Your task to perform on an android device: toggle notification dots Image 0: 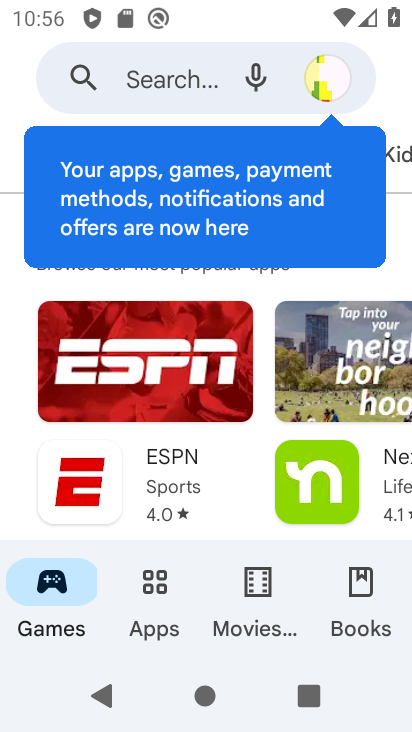
Step 0: press back button
Your task to perform on an android device: toggle notification dots Image 1: 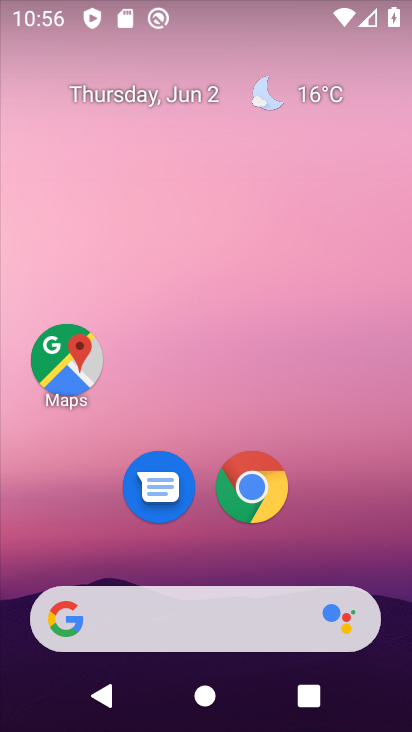
Step 1: drag from (358, 472) to (223, 38)
Your task to perform on an android device: toggle notification dots Image 2: 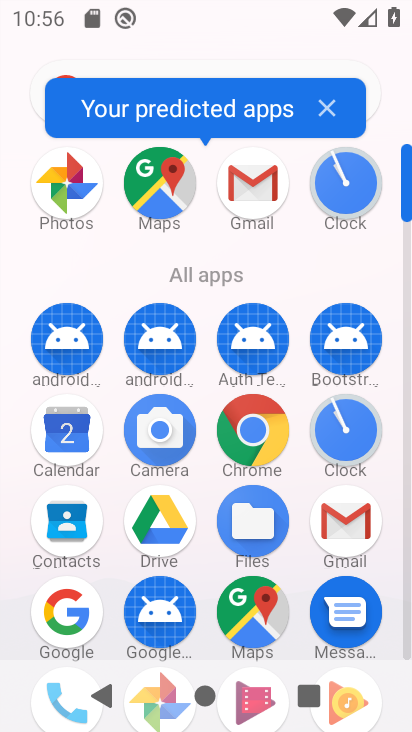
Step 2: drag from (350, 259) to (318, 20)
Your task to perform on an android device: toggle notification dots Image 3: 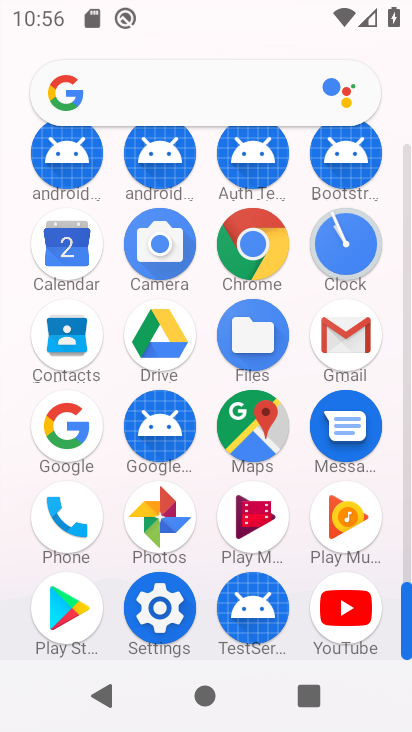
Step 3: click (160, 606)
Your task to perform on an android device: toggle notification dots Image 4: 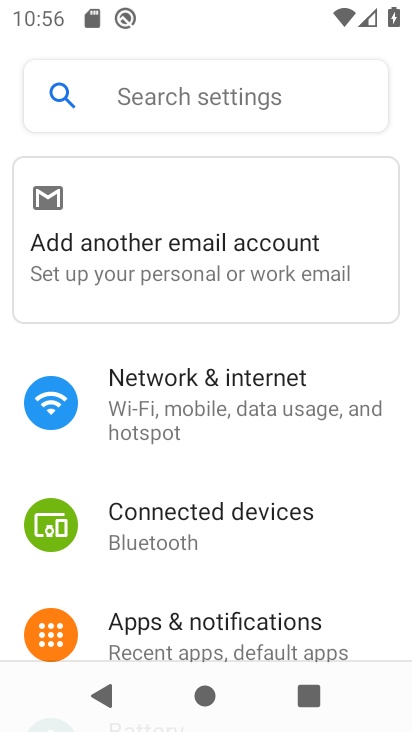
Step 4: drag from (165, 463) to (216, 346)
Your task to perform on an android device: toggle notification dots Image 5: 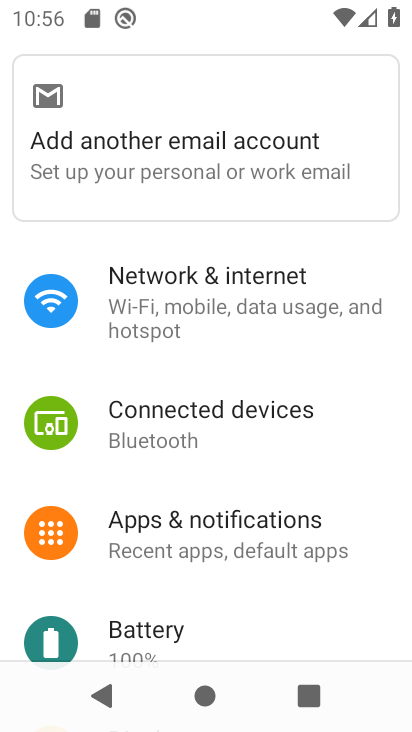
Step 5: click (226, 525)
Your task to perform on an android device: toggle notification dots Image 6: 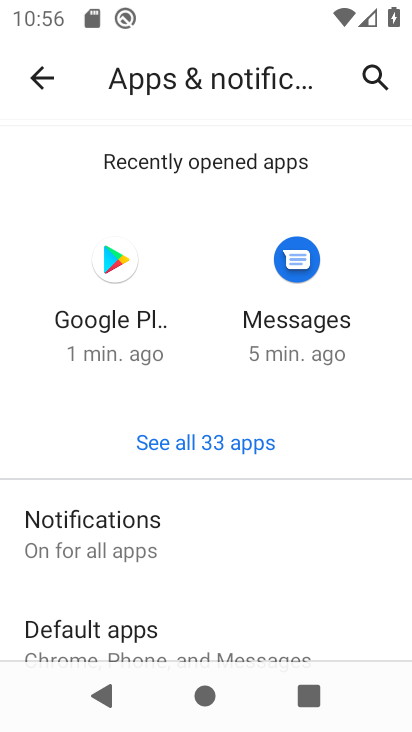
Step 6: click (107, 540)
Your task to perform on an android device: toggle notification dots Image 7: 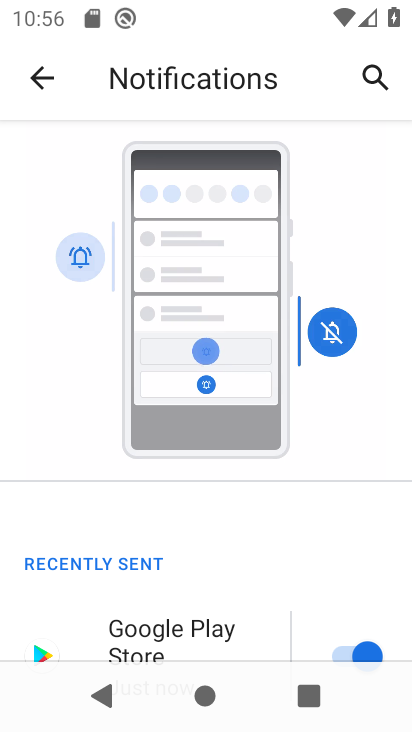
Step 7: drag from (188, 542) to (186, 286)
Your task to perform on an android device: toggle notification dots Image 8: 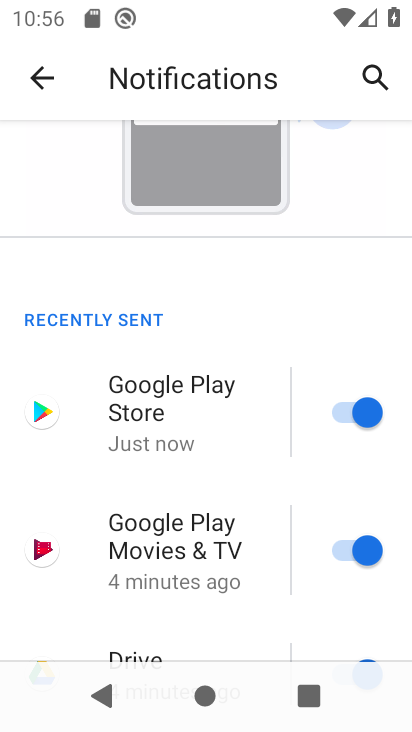
Step 8: drag from (167, 478) to (153, 292)
Your task to perform on an android device: toggle notification dots Image 9: 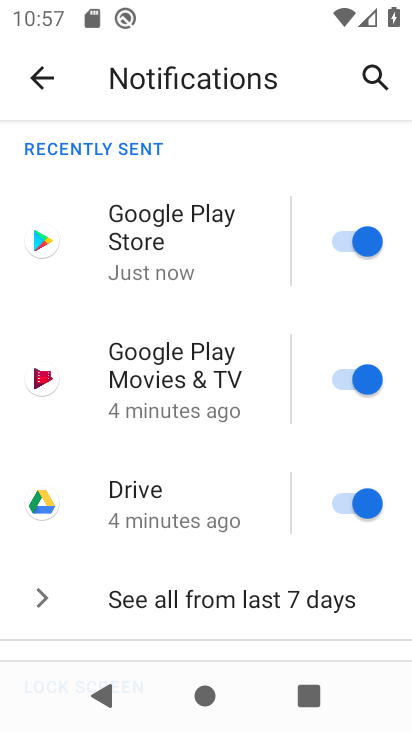
Step 9: drag from (151, 453) to (160, 286)
Your task to perform on an android device: toggle notification dots Image 10: 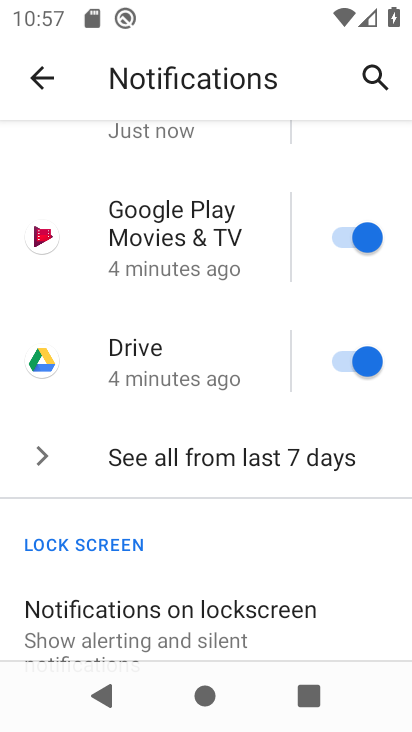
Step 10: drag from (194, 529) to (190, 302)
Your task to perform on an android device: toggle notification dots Image 11: 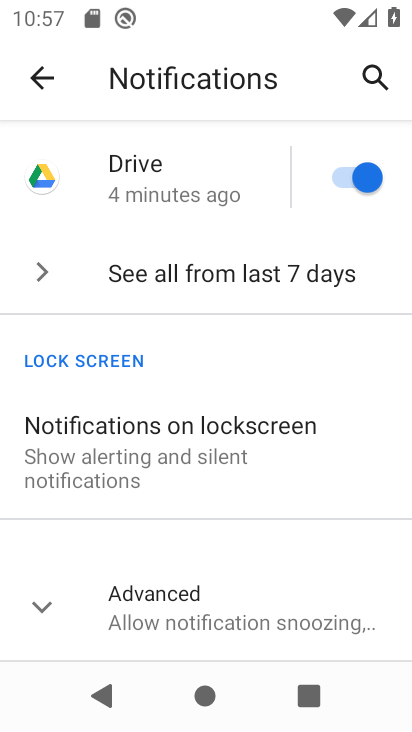
Step 11: click (192, 624)
Your task to perform on an android device: toggle notification dots Image 12: 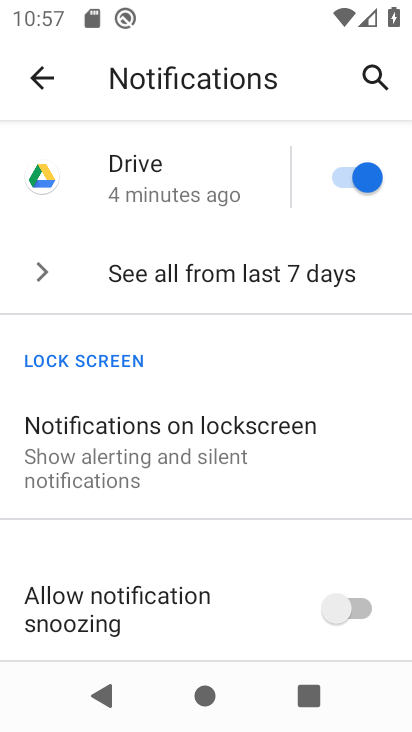
Step 12: drag from (186, 548) to (243, 421)
Your task to perform on an android device: toggle notification dots Image 13: 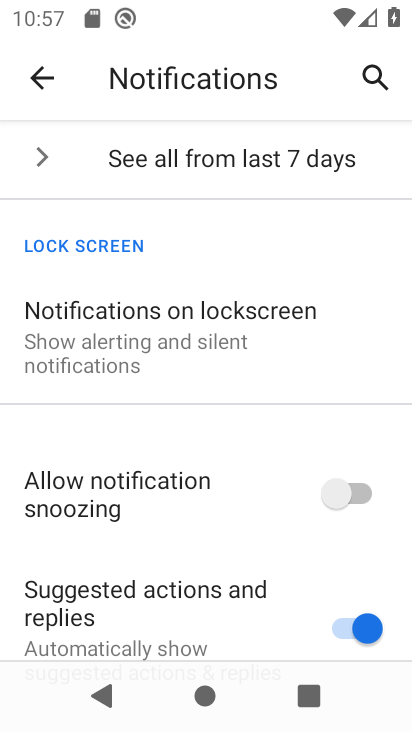
Step 13: drag from (172, 544) to (260, 400)
Your task to perform on an android device: toggle notification dots Image 14: 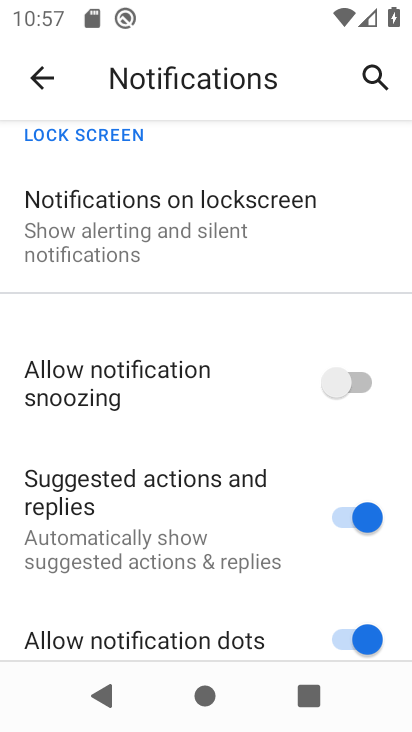
Step 14: drag from (187, 590) to (272, 466)
Your task to perform on an android device: toggle notification dots Image 15: 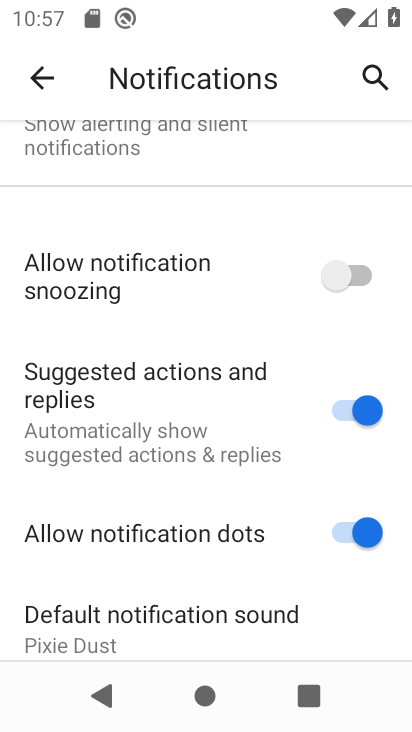
Step 15: click (346, 539)
Your task to perform on an android device: toggle notification dots Image 16: 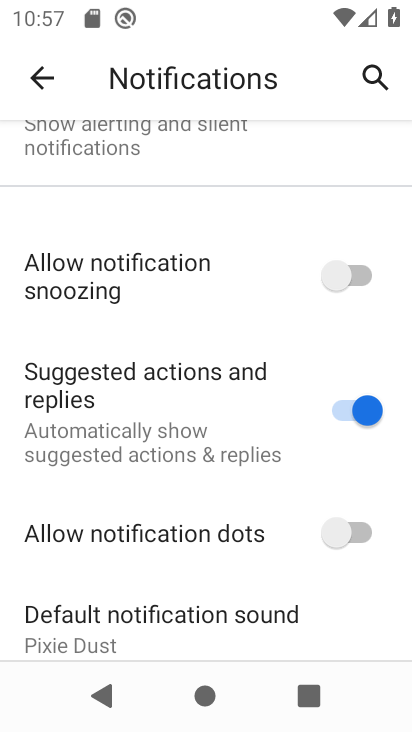
Step 16: task complete